Your task to perform on an android device: open device folders in google photos Image 0: 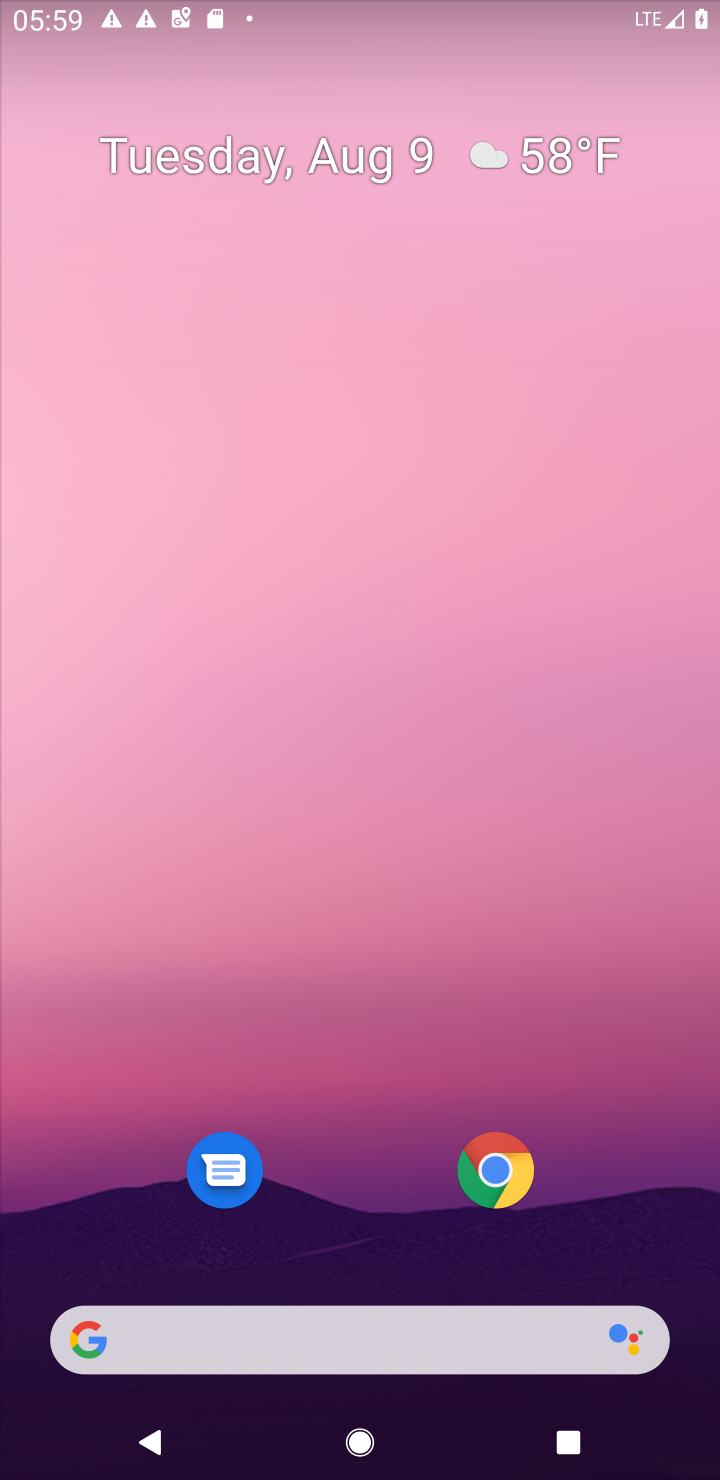
Step 0: press home button
Your task to perform on an android device: open device folders in google photos Image 1: 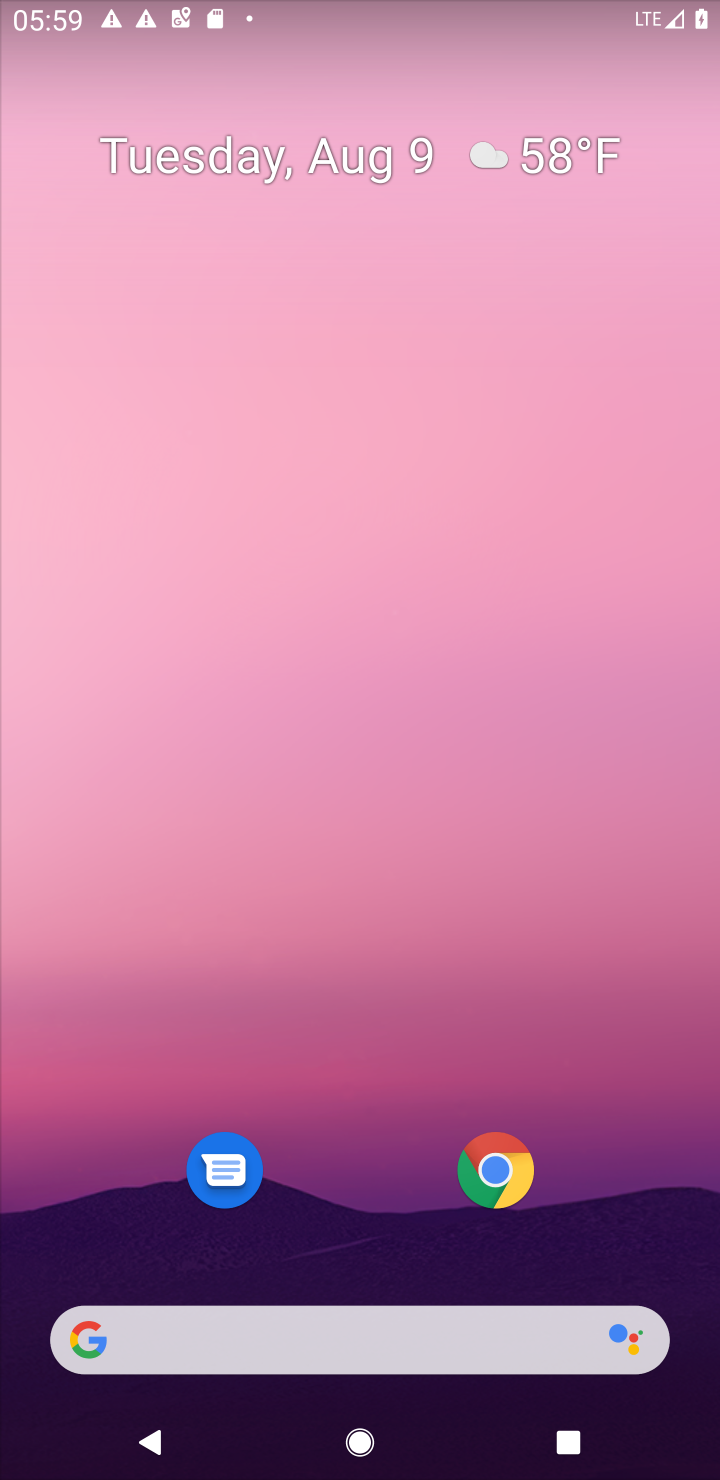
Step 1: drag from (333, 1269) to (374, 42)
Your task to perform on an android device: open device folders in google photos Image 2: 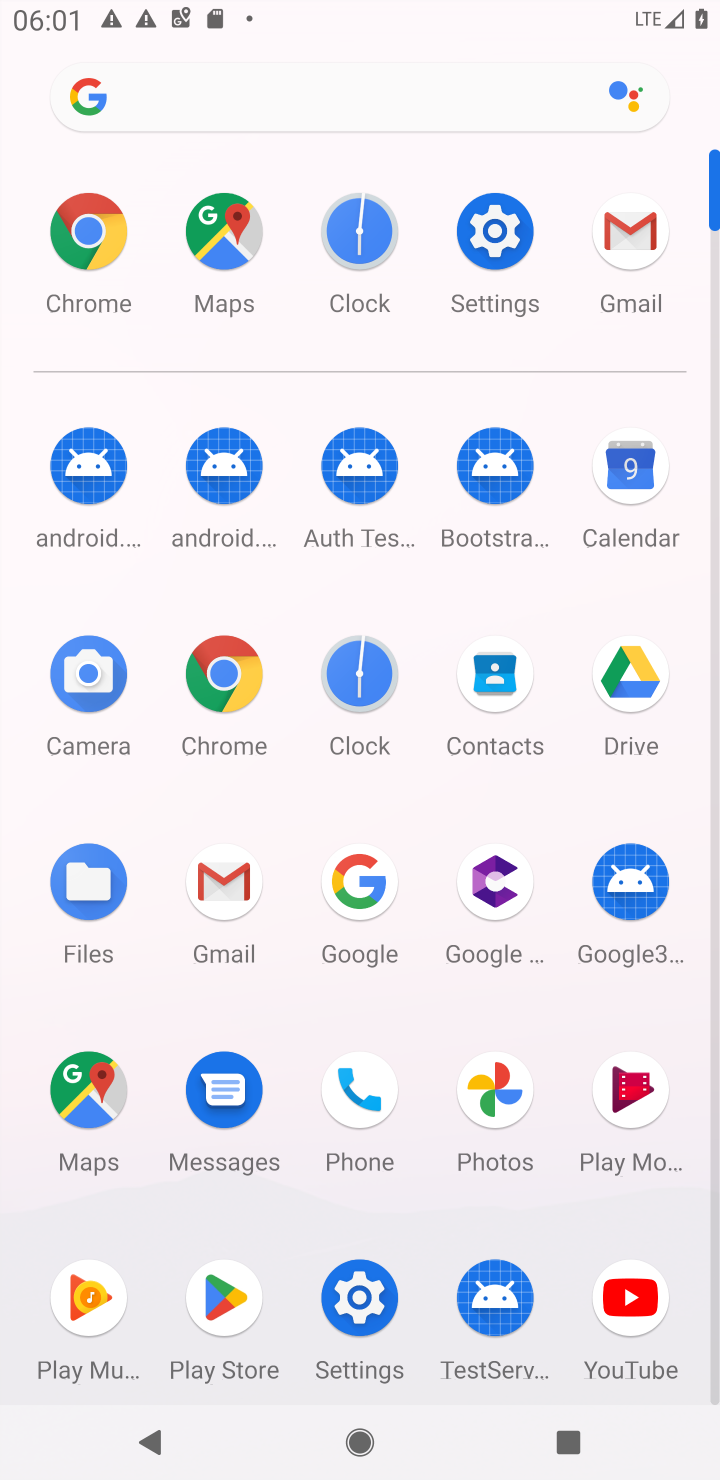
Step 2: click (487, 1101)
Your task to perform on an android device: open device folders in google photos Image 3: 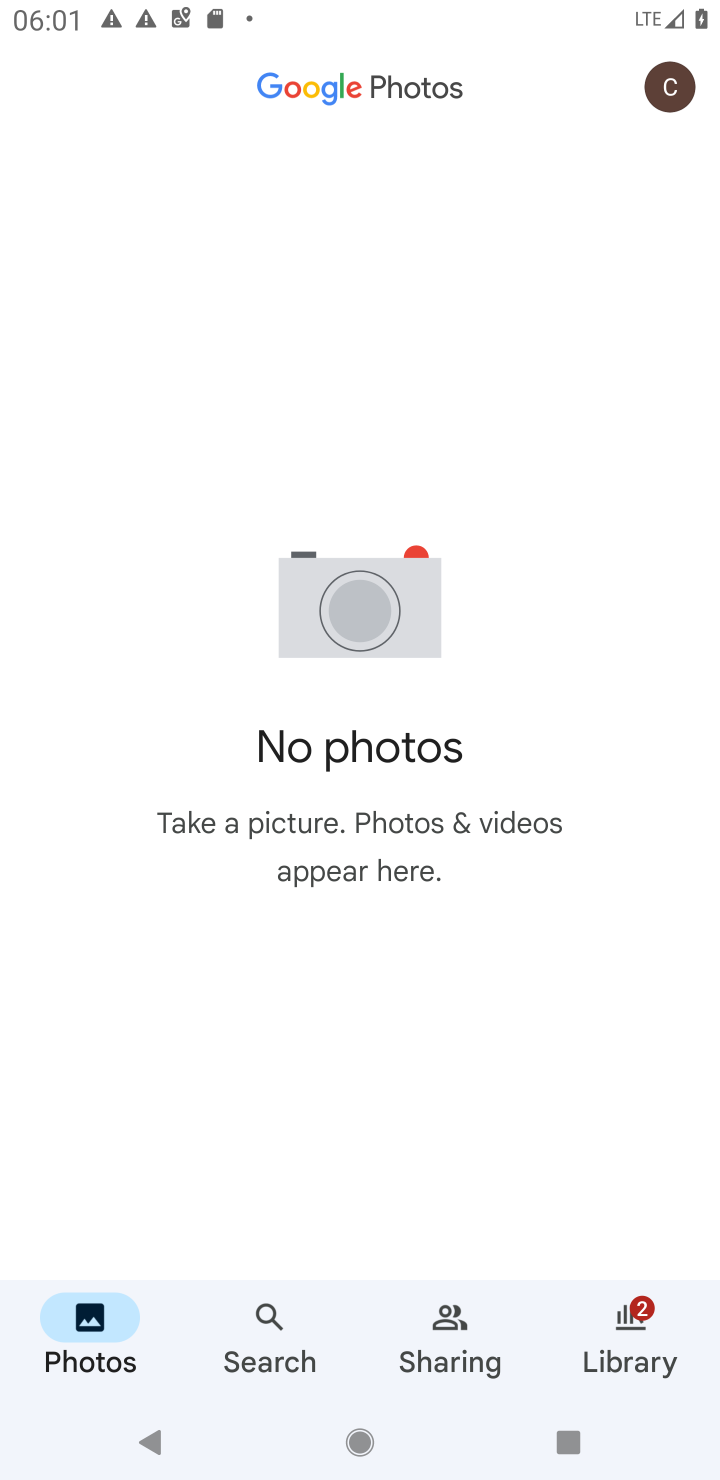
Step 3: click (684, 95)
Your task to perform on an android device: open device folders in google photos Image 4: 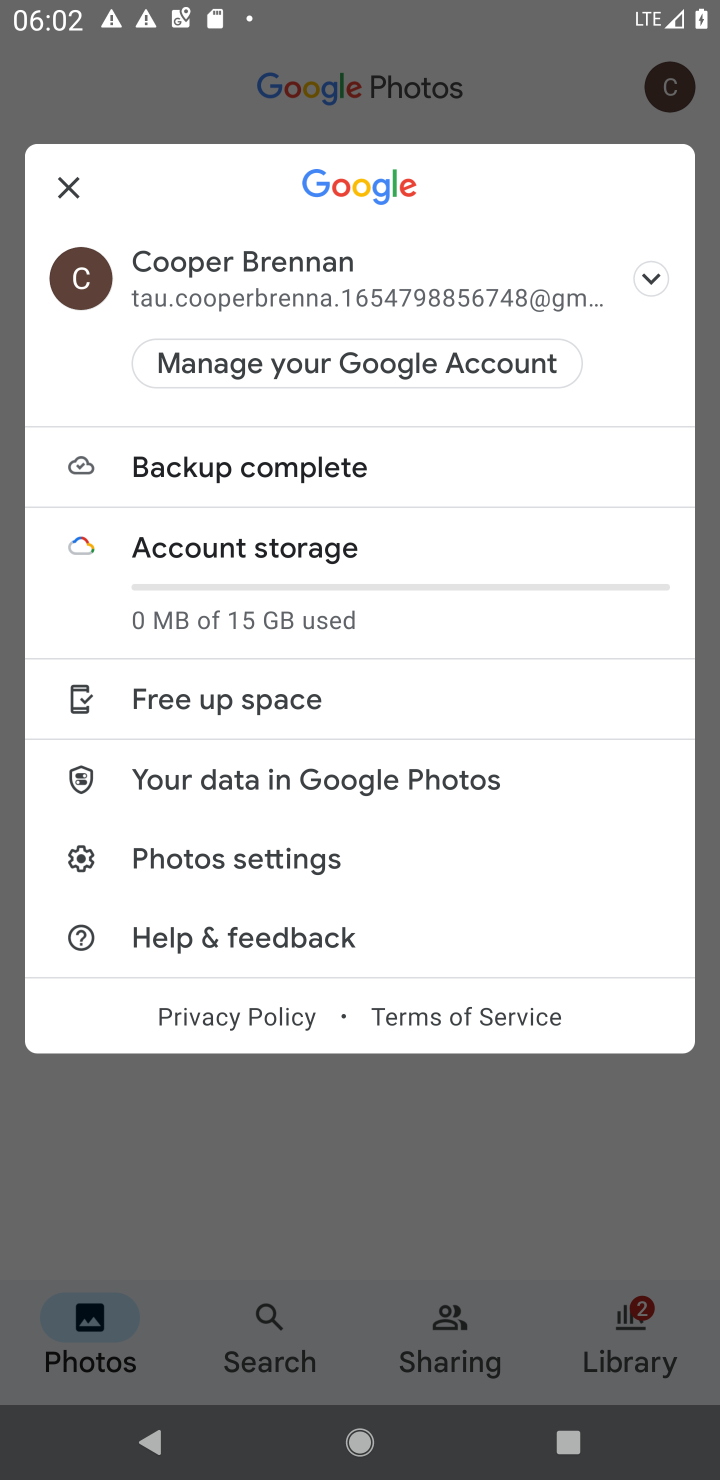
Step 4: task complete